Your task to perform on an android device: Turn off the flashlight Image 0: 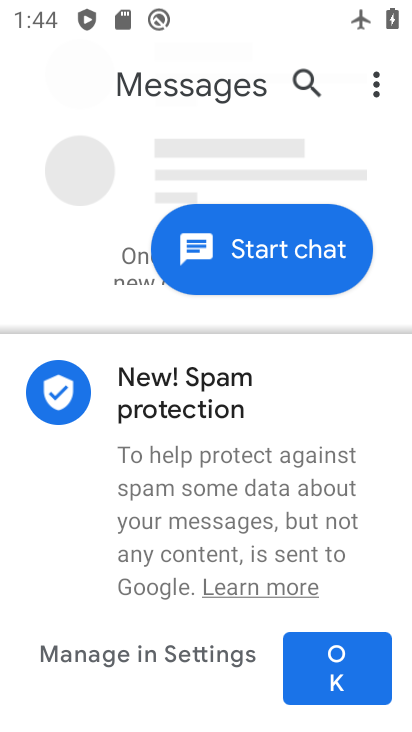
Step 0: press home button
Your task to perform on an android device: Turn off the flashlight Image 1: 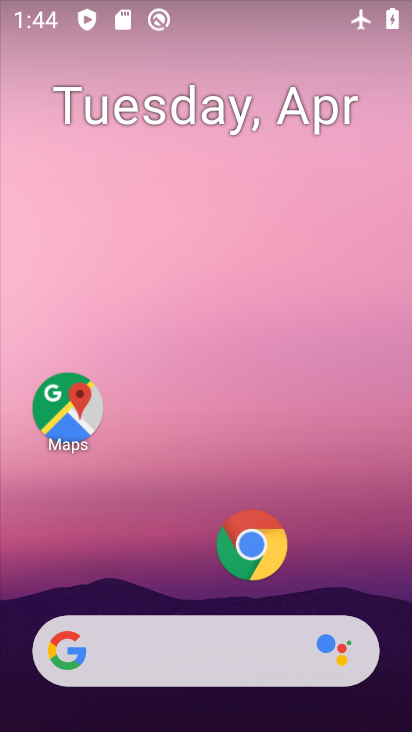
Step 1: drag from (156, 579) to (253, 207)
Your task to perform on an android device: Turn off the flashlight Image 2: 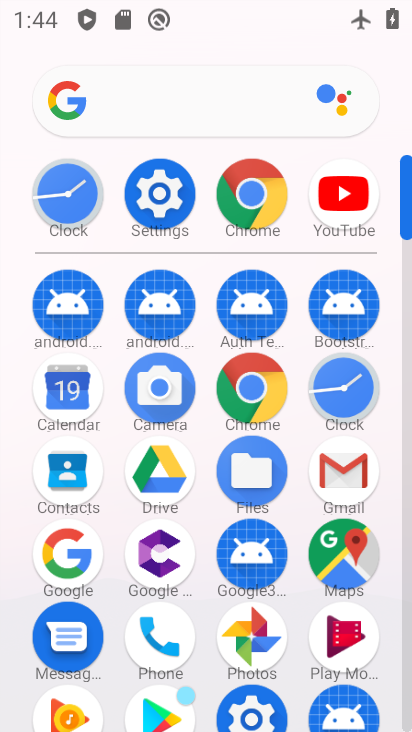
Step 2: click (250, 715)
Your task to perform on an android device: Turn off the flashlight Image 3: 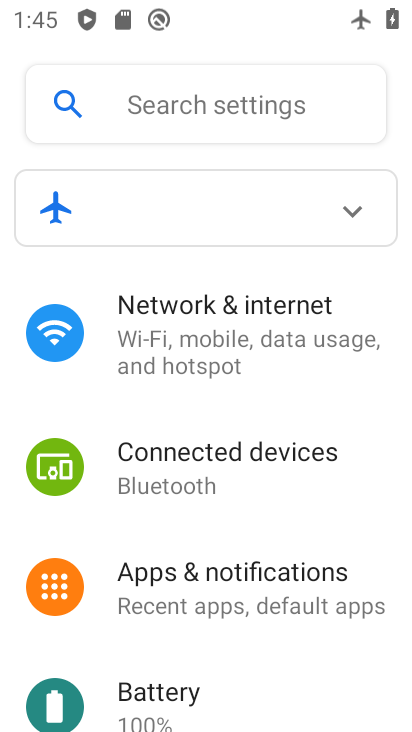
Step 3: task complete